Your task to perform on an android device: Go to CNN.com Image 0: 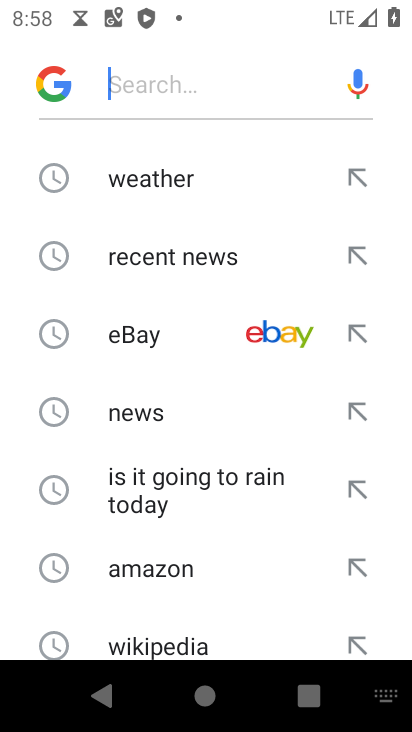
Step 0: type " cnn"
Your task to perform on an android device: Go to CNN.com Image 1: 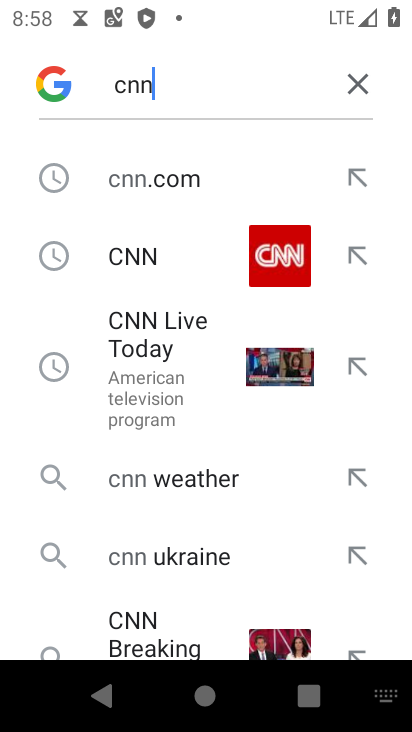
Step 1: click (149, 177)
Your task to perform on an android device: Go to CNN.com Image 2: 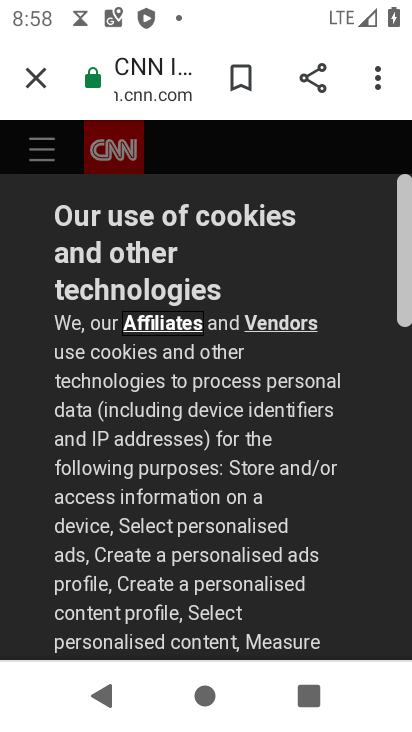
Step 2: task complete